Your task to perform on an android device: Check the news Image 0: 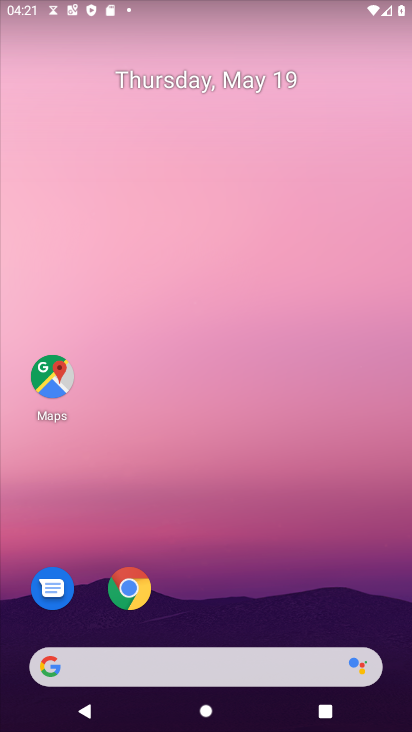
Step 0: click (187, 670)
Your task to perform on an android device: Check the news Image 1: 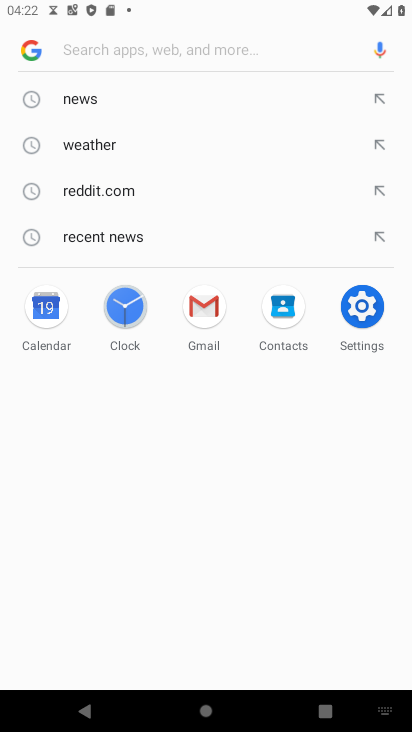
Step 1: click (71, 102)
Your task to perform on an android device: Check the news Image 2: 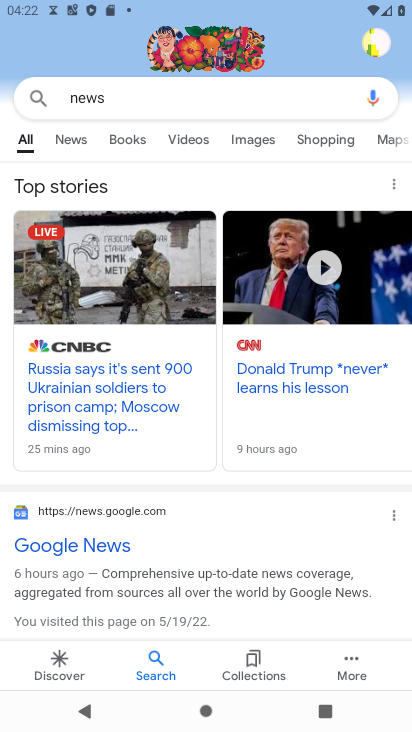
Step 2: task complete